Your task to perform on an android device: install app "Messenger Lite" Image 0: 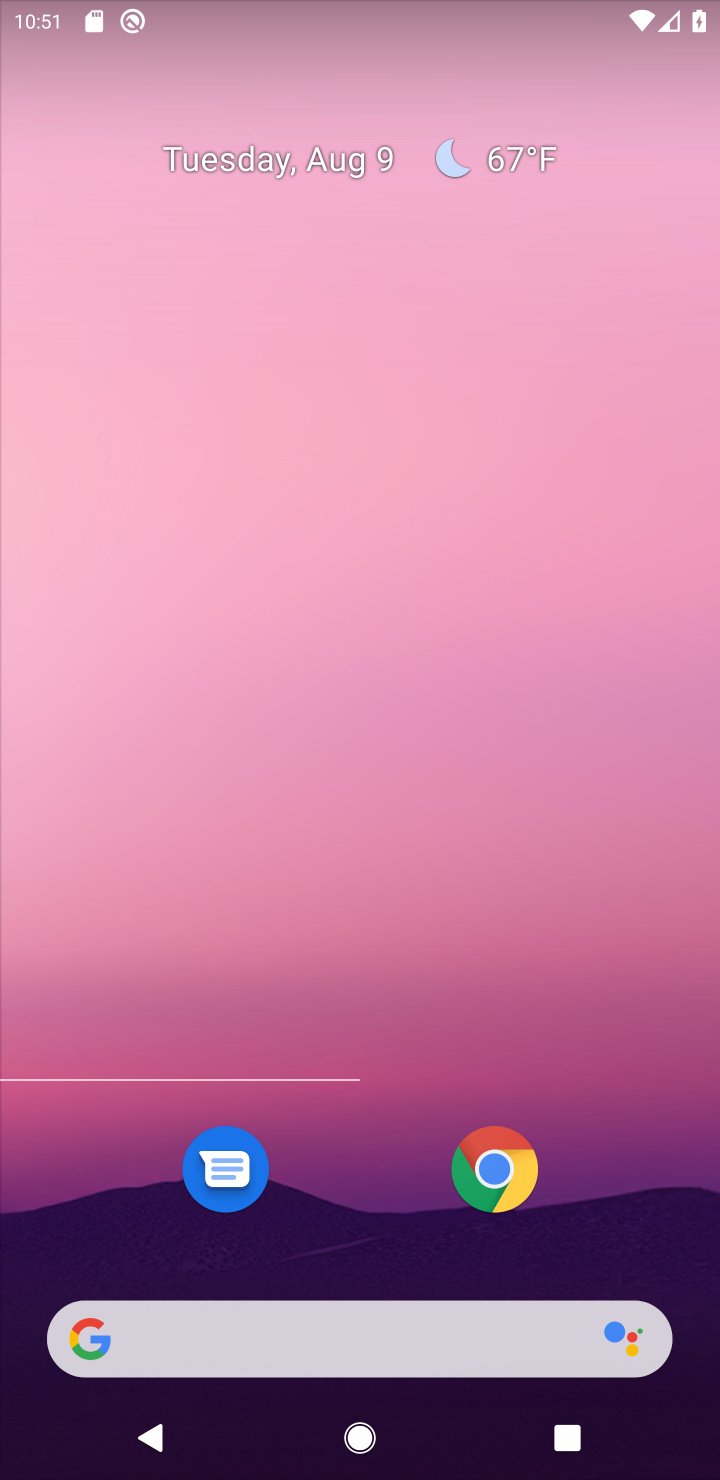
Step 0: press home button
Your task to perform on an android device: install app "Messenger Lite" Image 1: 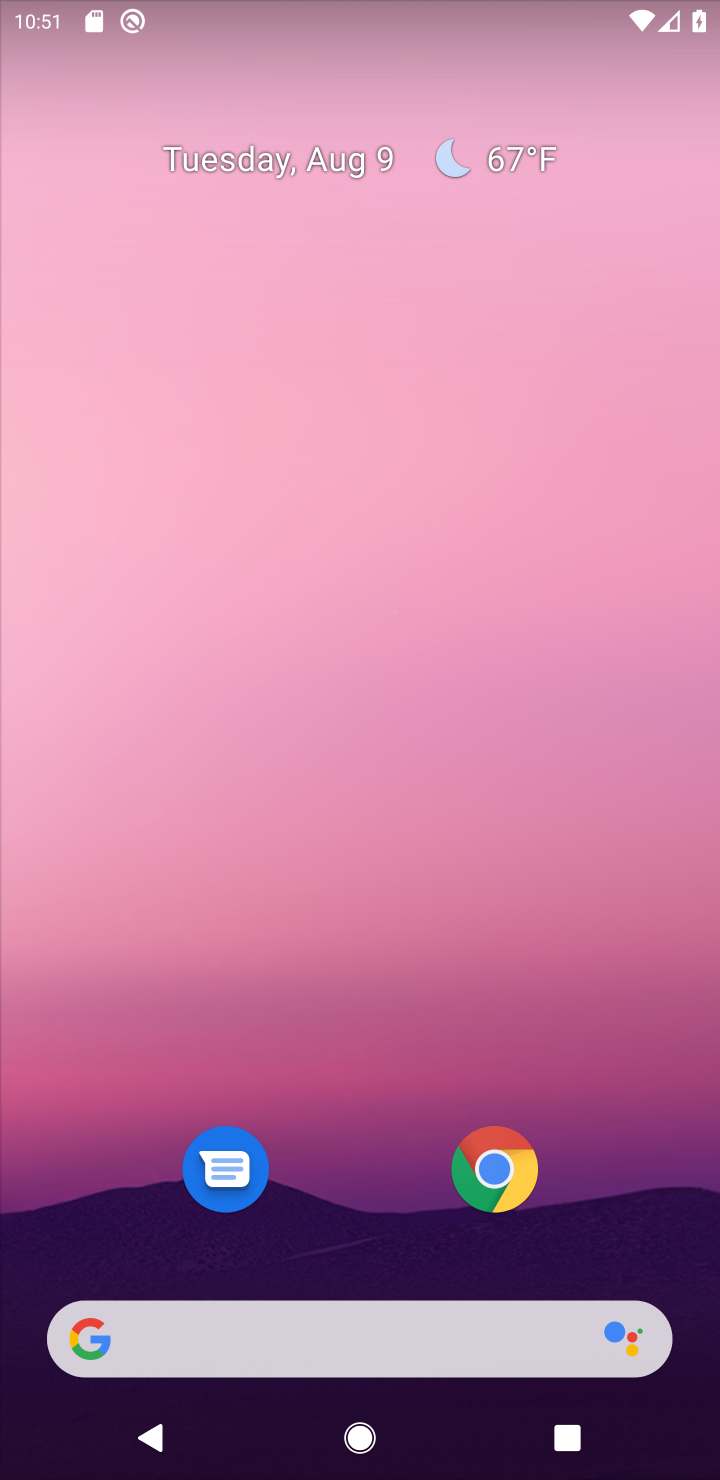
Step 1: drag from (581, 1239) to (603, 146)
Your task to perform on an android device: install app "Messenger Lite" Image 2: 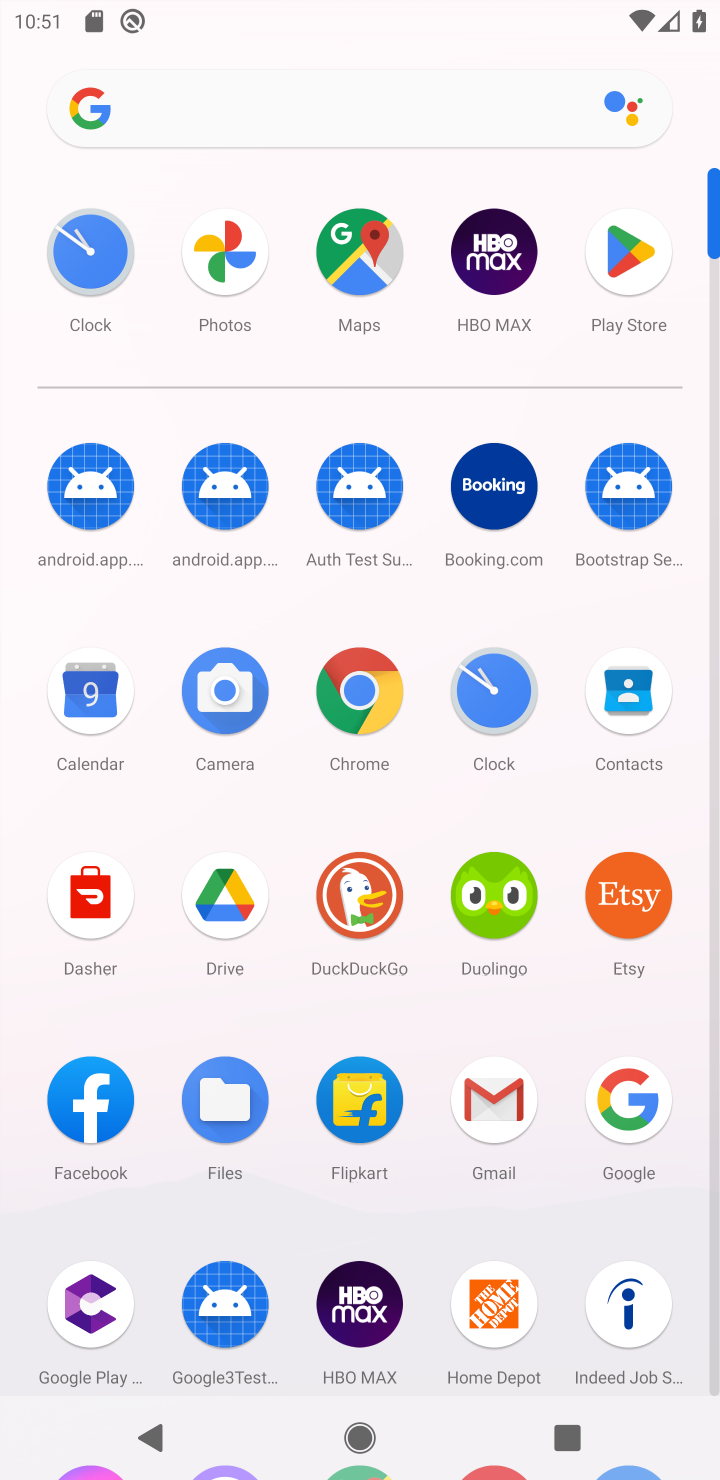
Step 2: click (639, 250)
Your task to perform on an android device: install app "Messenger Lite" Image 3: 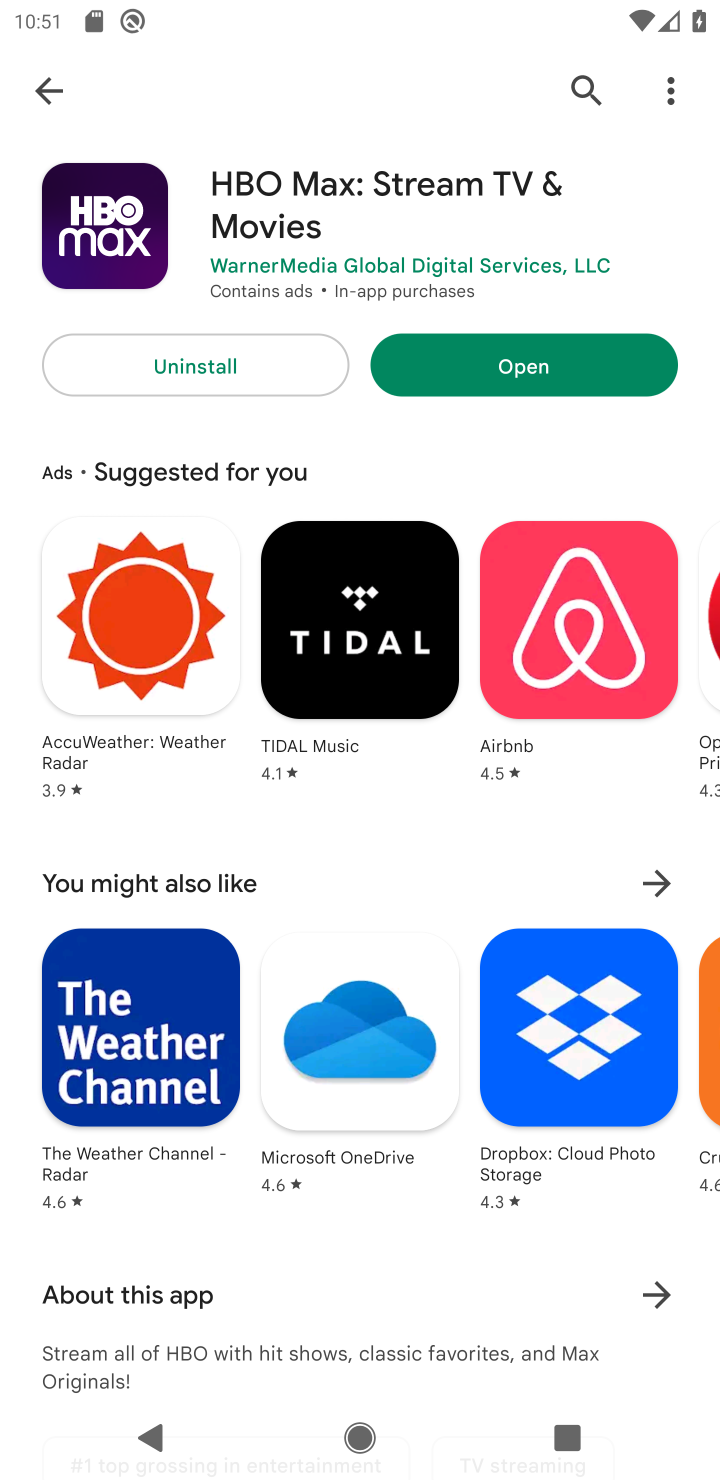
Step 3: click (584, 77)
Your task to perform on an android device: install app "Messenger Lite" Image 4: 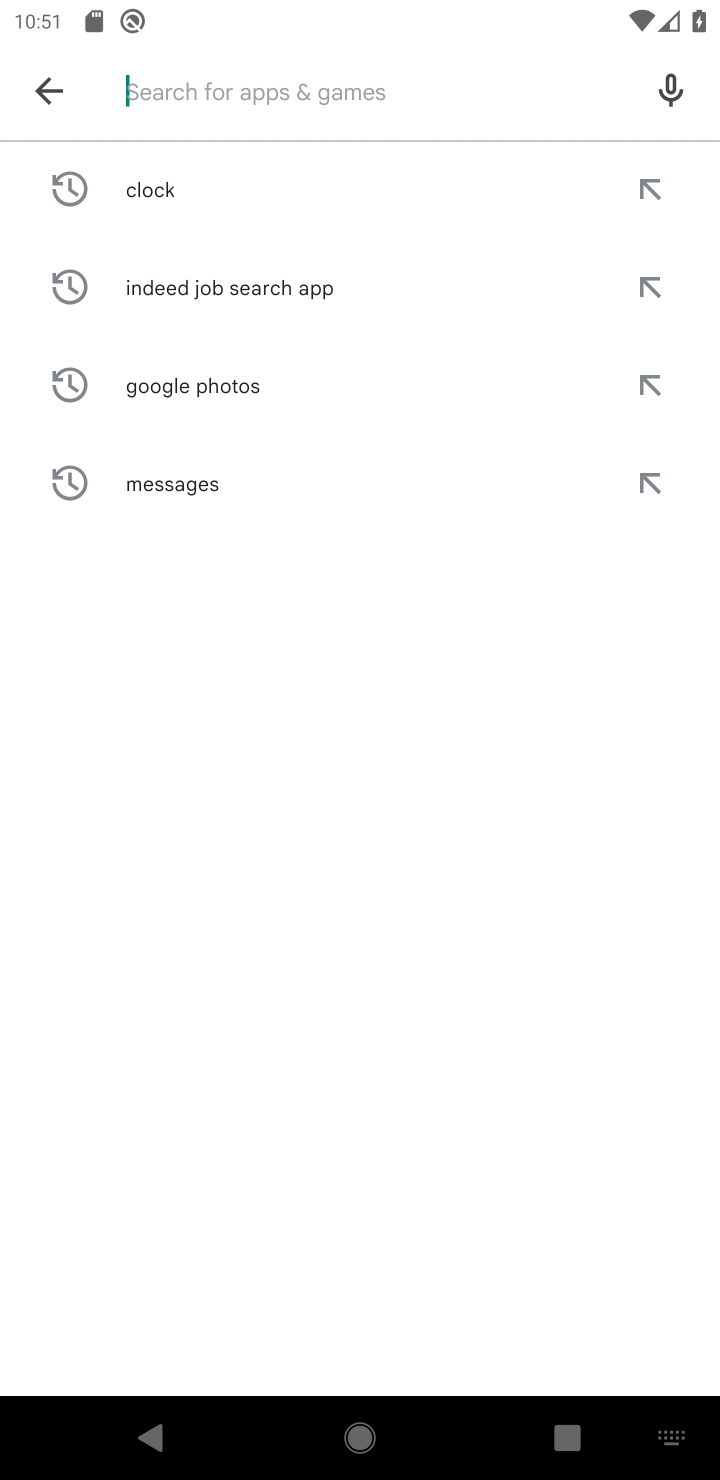
Step 4: type "messenger lite"
Your task to perform on an android device: install app "Messenger Lite" Image 5: 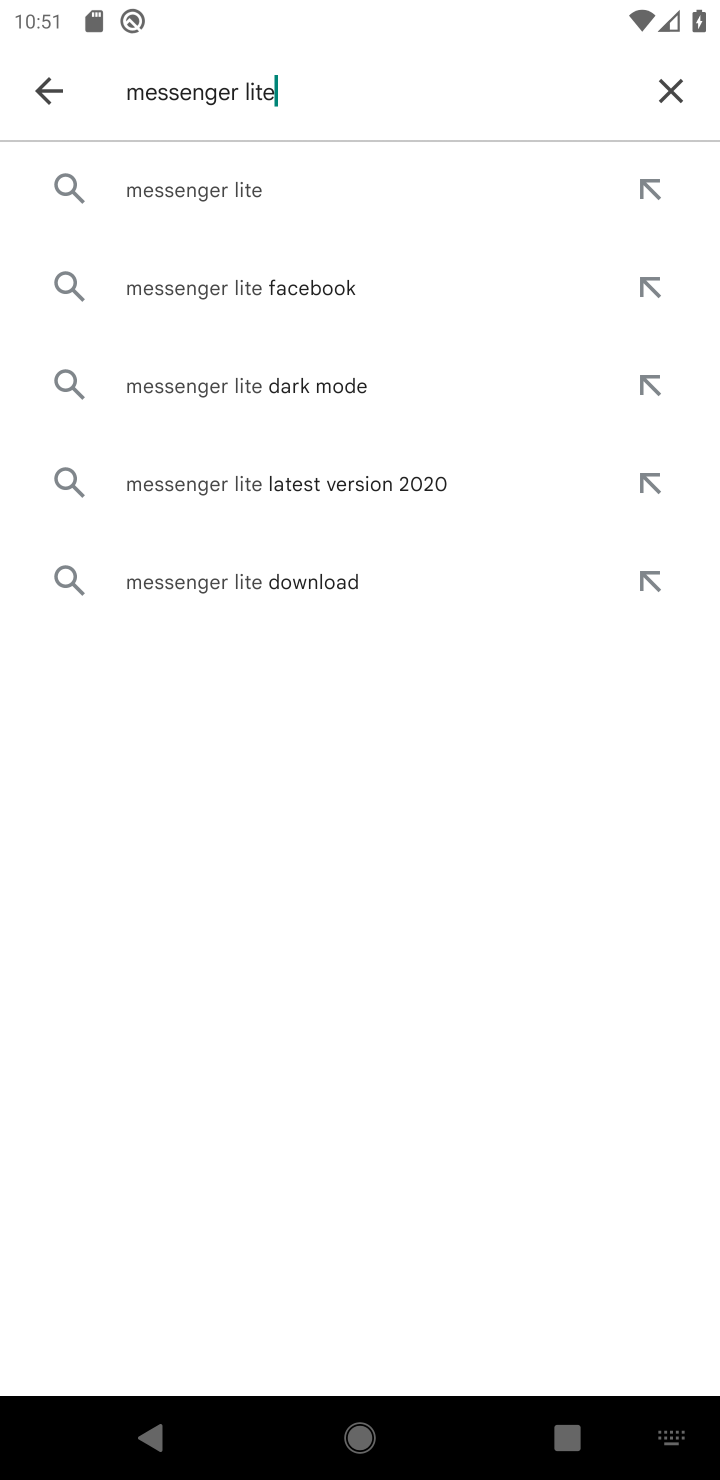
Step 5: click (280, 181)
Your task to perform on an android device: install app "Messenger Lite" Image 6: 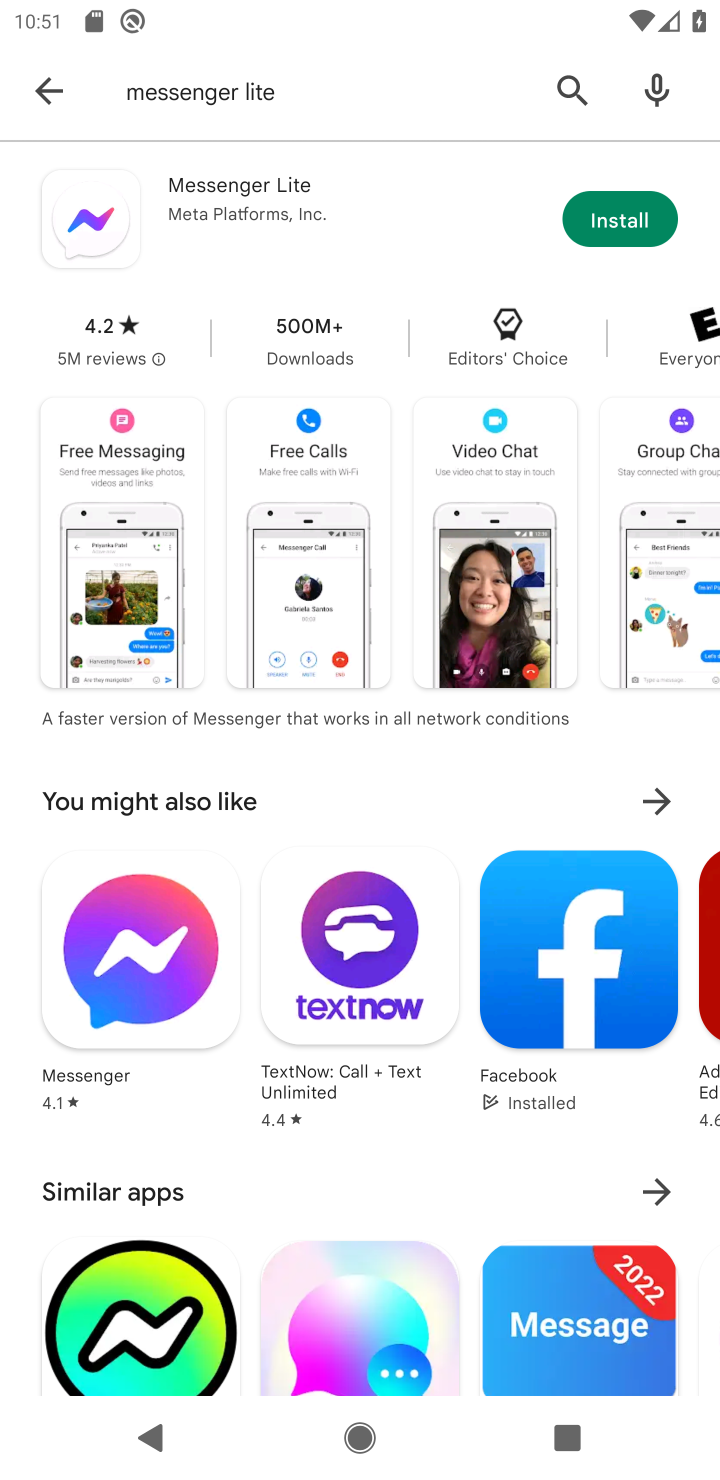
Step 6: click (633, 216)
Your task to perform on an android device: install app "Messenger Lite" Image 7: 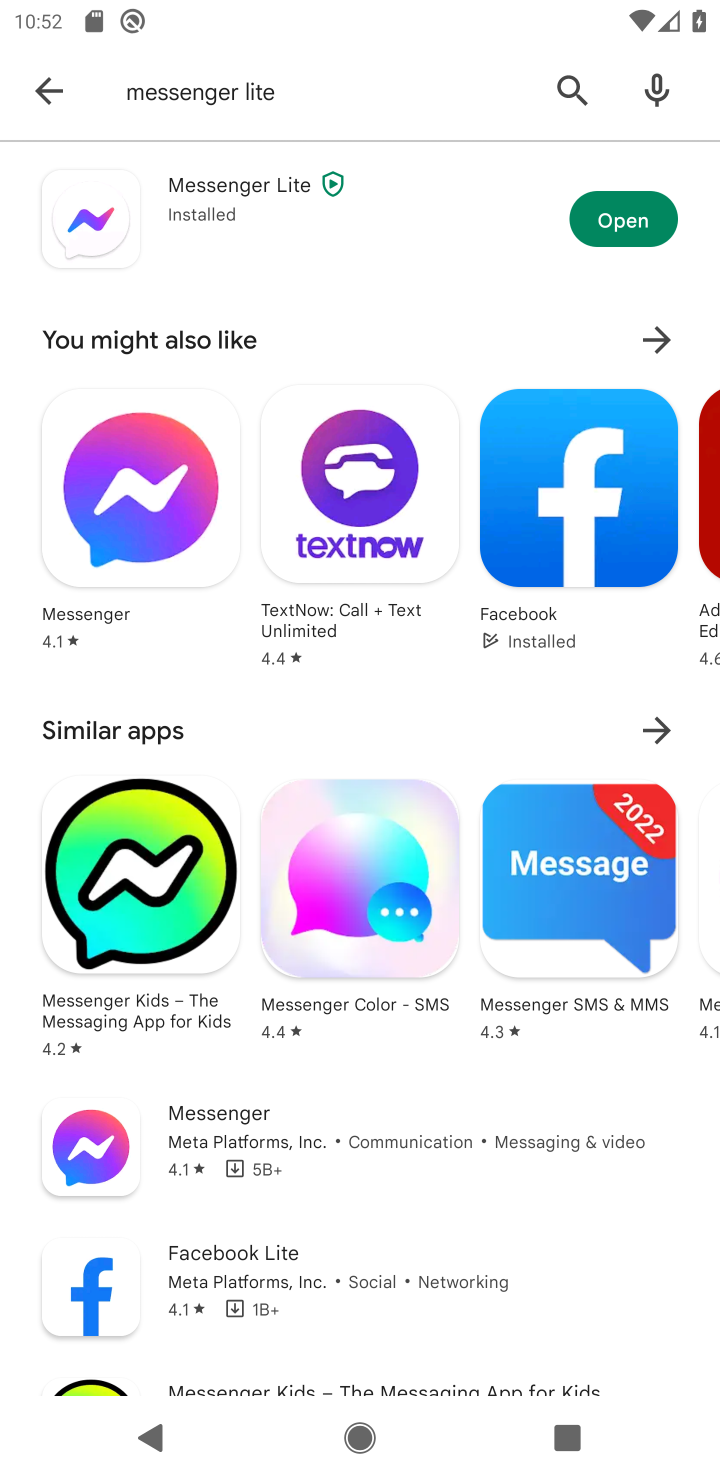
Step 7: task complete